Your task to perform on an android device: Search for vegetarian restaurants on Maps Image 0: 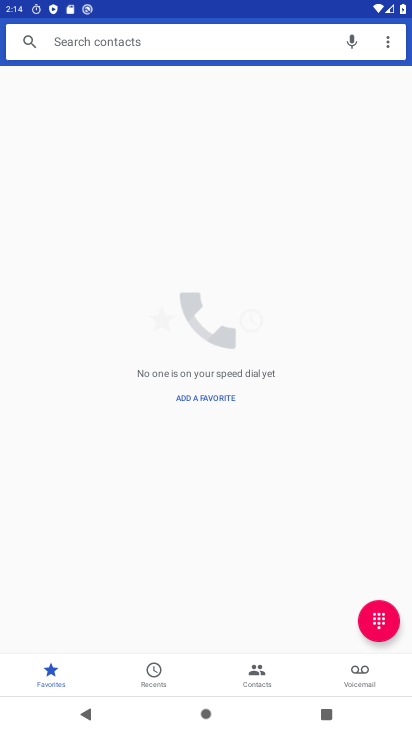
Step 0: drag from (254, 635) to (373, 560)
Your task to perform on an android device: Search for vegetarian restaurants on Maps Image 1: 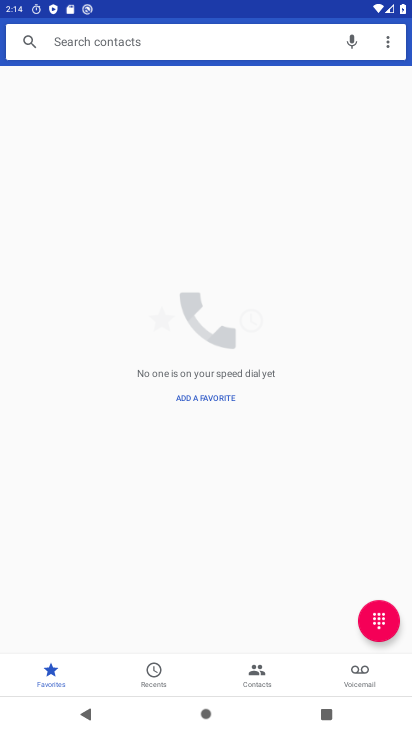
Step 1: press home button
Your task to perform on an android device: Search for vegetarian restaurants on Maps Image 2: 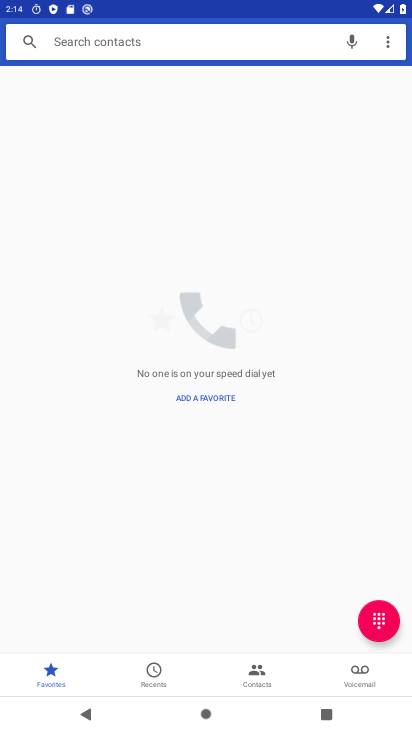
Step 2: click (391, 393)
Your task to perform on an android device: Search for vegetarian restaurants on Maps Image 3: 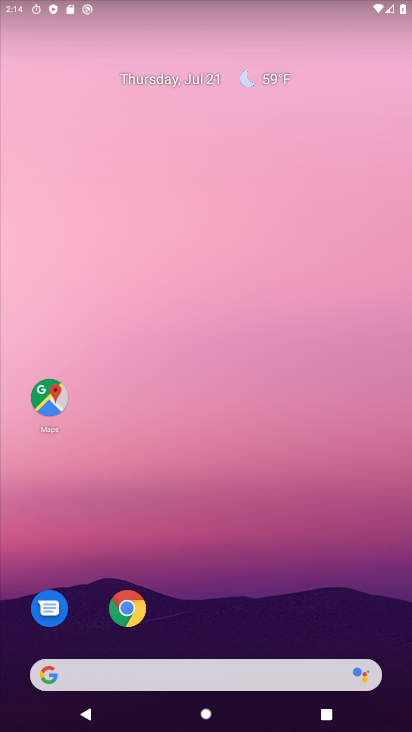
Step 3: click (42, 392)
Your task to perform on an android device: Search for vegetarian restaurants on Maps Image 4: 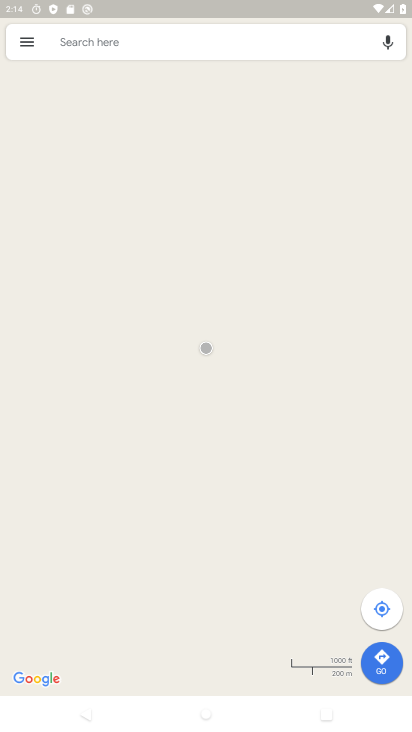
Step 4: click (166, 45)
Your task to perform on an android device: Search for vegetarian restaurants on Maps Image 5: 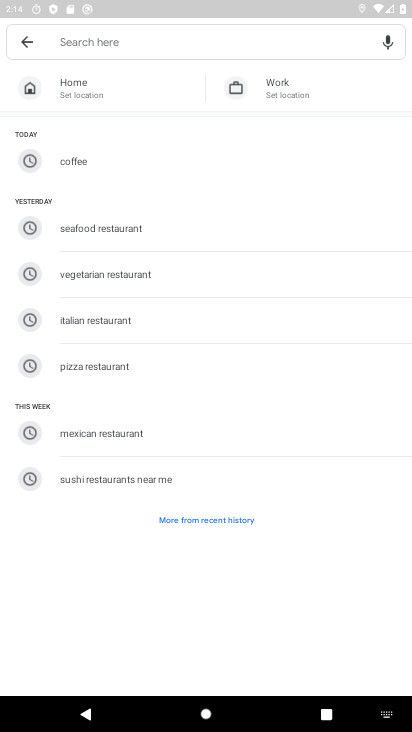
Step 5: type "vegetarian restaurants"
Your task to perform on an android device: Search for vegetarian restaurants on Maps Image 6: 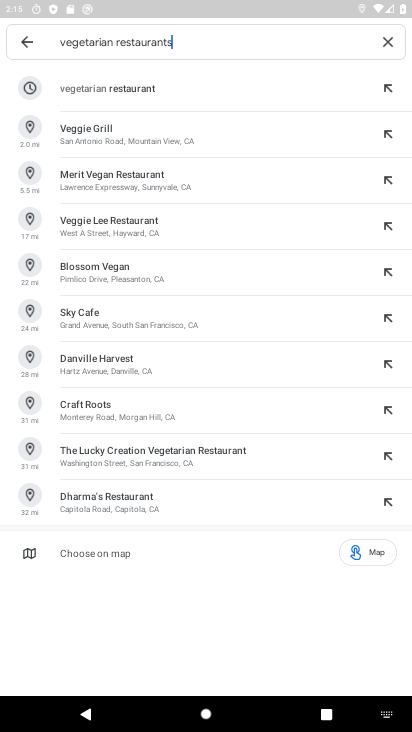
Step 6: click (178, 85)
Your task to perform on an android device: Search for vegetarian restaurants on Maps Image 7: 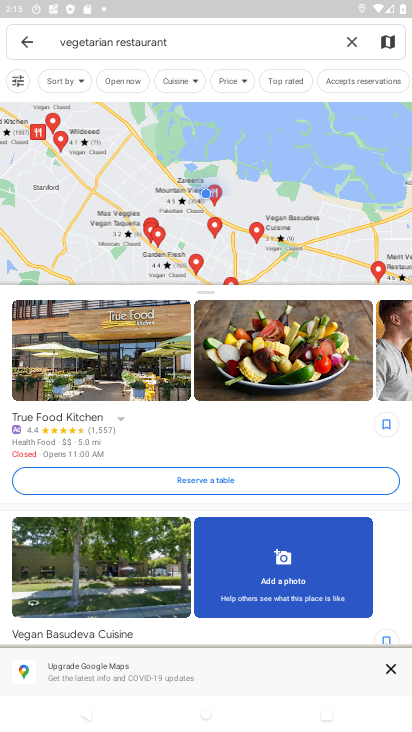
Step 7: task complete